Your task to perform on an android device: Open Chrome and go to the settings page Image 0: 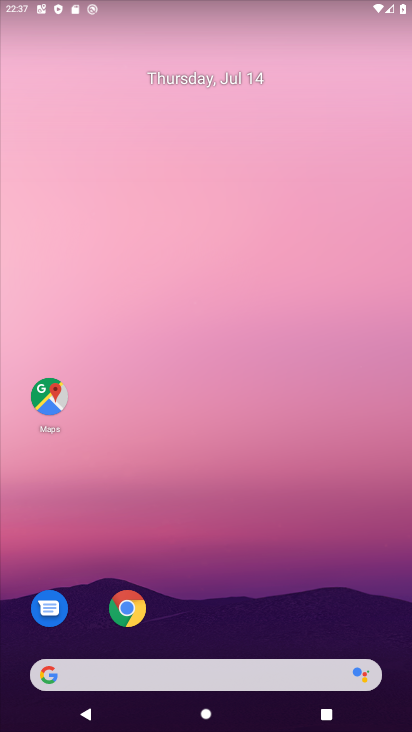
Step 0: click (130, 615)
Your task to perform on an android device: Open Chrome and go to the settings page Image 1: 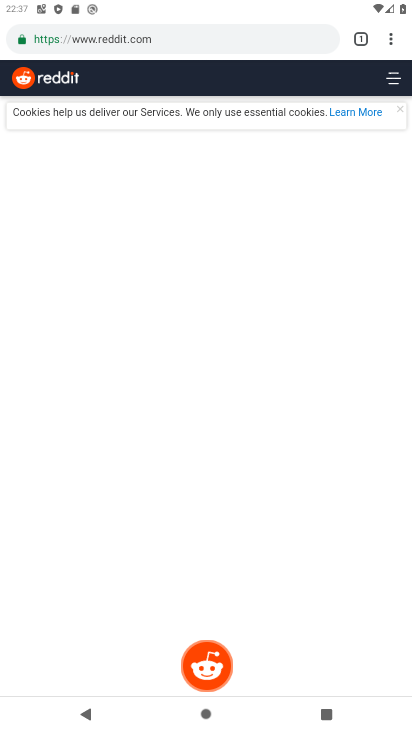
Step 1: click (392, 41)
Your task to perform on an android device: Open Chrome and go to the settings page Image 2: 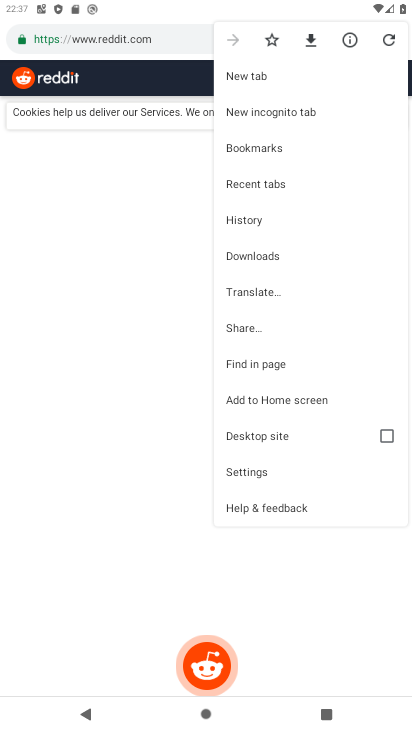
Step 2: click (255, 469)
Your task to perform on an android device: Open Chrome and go to the settings page Image 3: 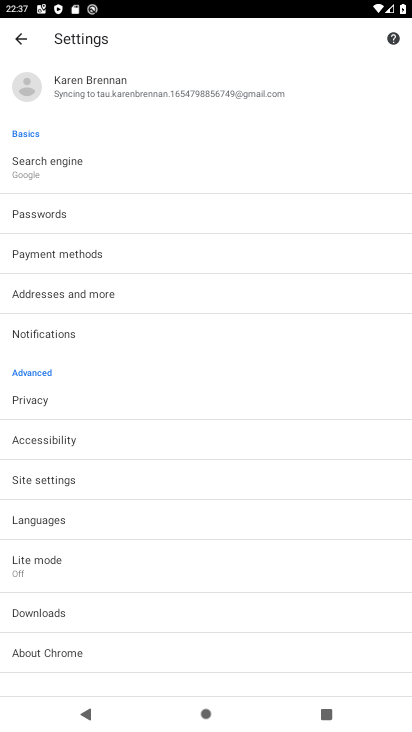
Step 3: task complete